Your task to perform on an android device: Open my contact list Image 0: 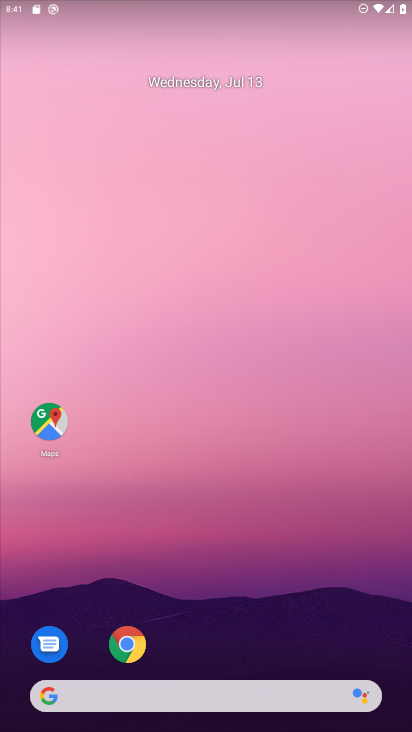
Step 0: press home button
Your task to perform on an android device: Open my contact list Image 1: 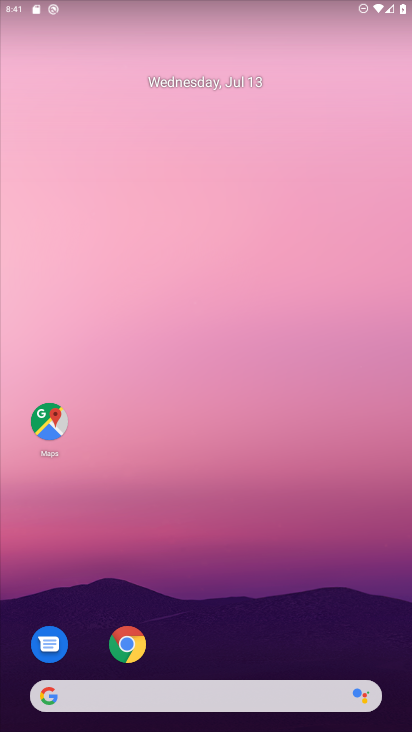
Step 1: drag from (397, 307) to (393, 172)
Your task to perform on an android device: Open my contact list Image 2: 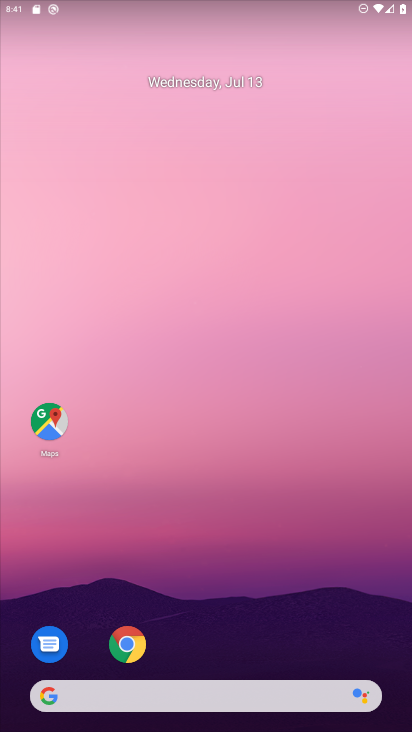
Step 2: drag from (315, 181) to (315, 123)
Your task to perform on an android device: Open my contact list Image 3: 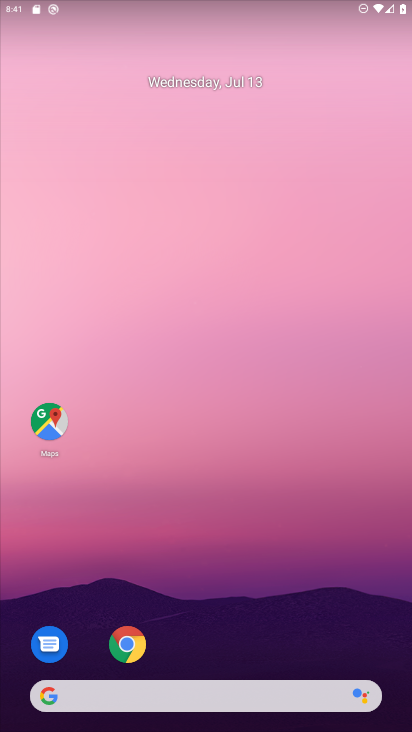
Step 3: drag from (227, 476) to (216, 39)
Your task to perform on an android device: Open my contact list Image 4: 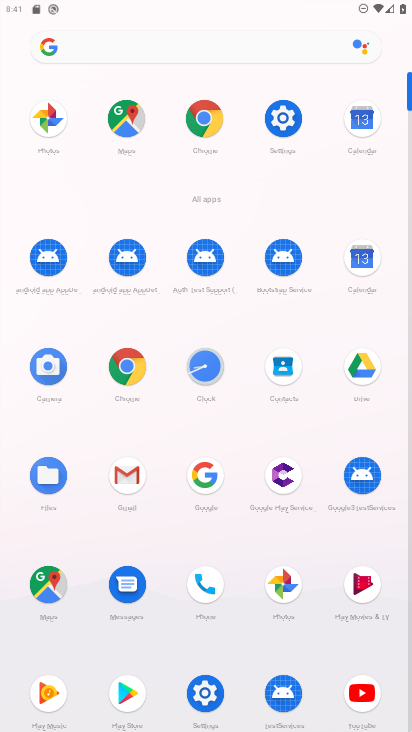
Step 4: click (286, 361)
Your task to perform on an android device: Open my contact list Image 5: 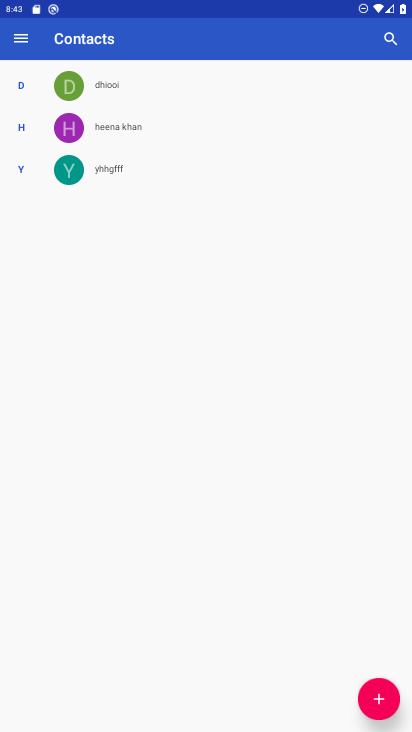
Step 5: task complete